Your task to perform on an android device: find which apps use the phone's location Image 0: 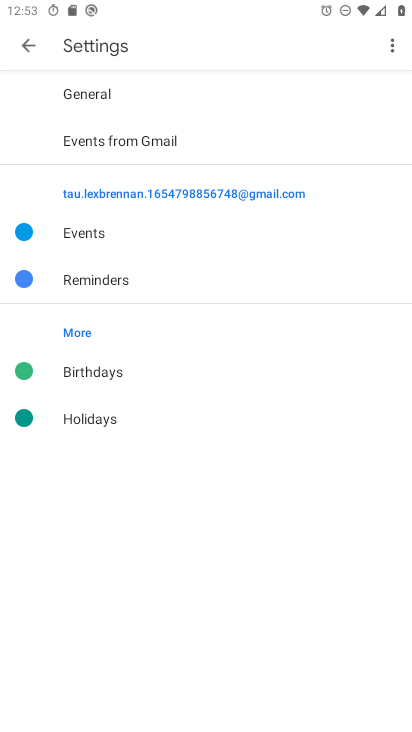
Step 0: press home button
Your task to perform on an android device: find which apps use the phone's location Image 1: 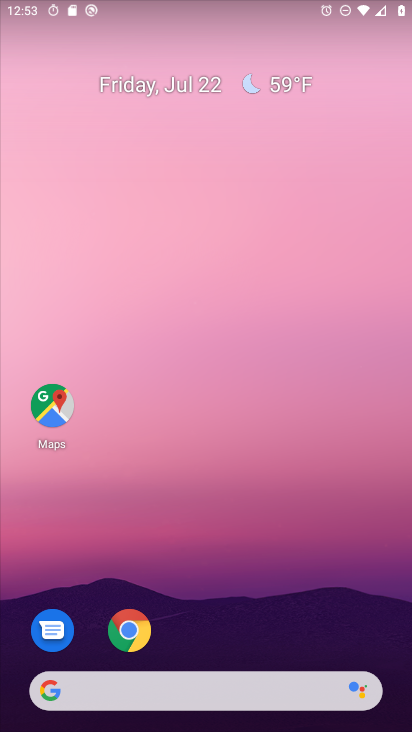
Step 1: drag from (224, 637) to (327, 90)
Your task to perform on an android device: find which apps use the phone's location Image 2: 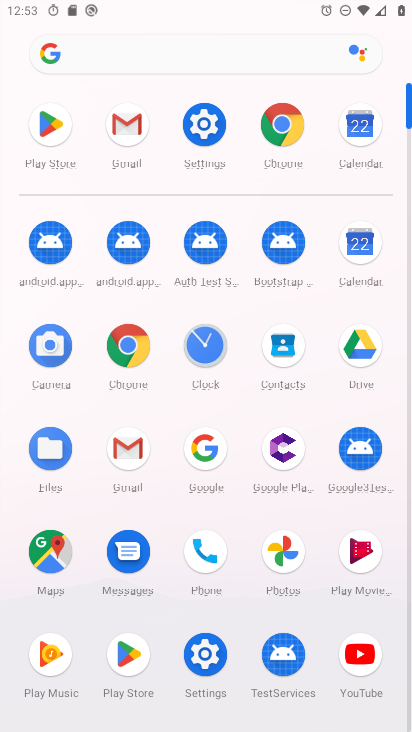
Step 2: click (193, 139)
Your task to perform on an android device: find which apps use the phone's location Image 3: 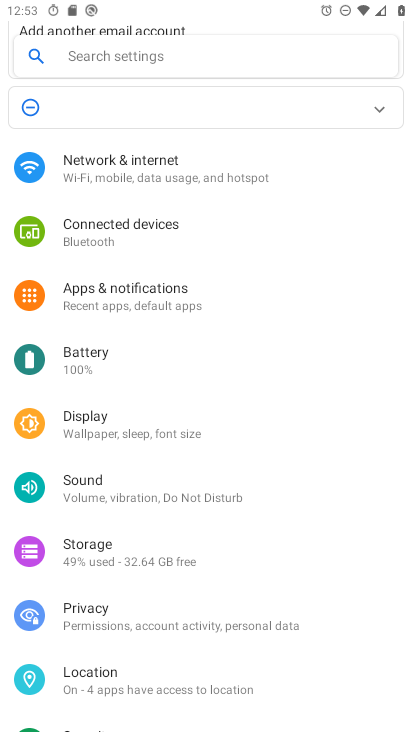
Step 3: click (107, 675)
Your task to perform on an android device: find which apps use the phone's location Image 4: 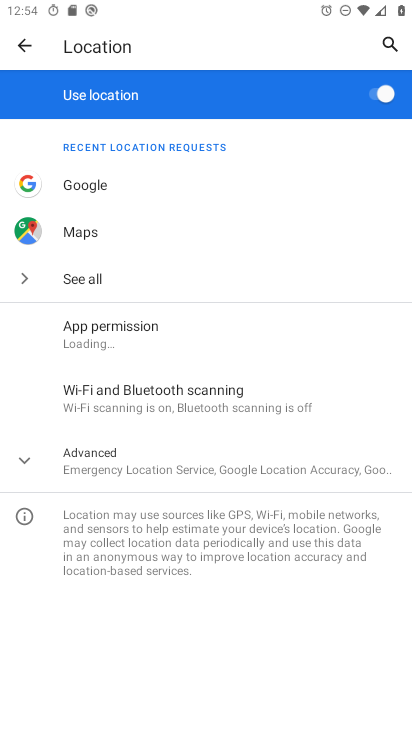
Step 4: click (100, 325)
Your task to perform on an android device: find which apps use the phone's location Image 5: 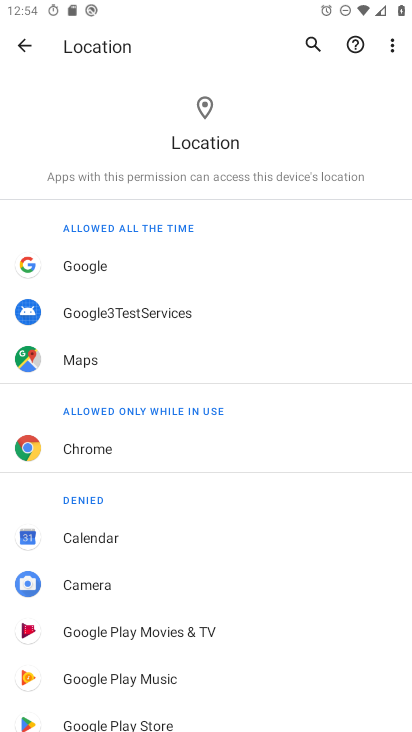
Step 5: task complete